Your task to perform on an android device: Open sound settings Image 0: 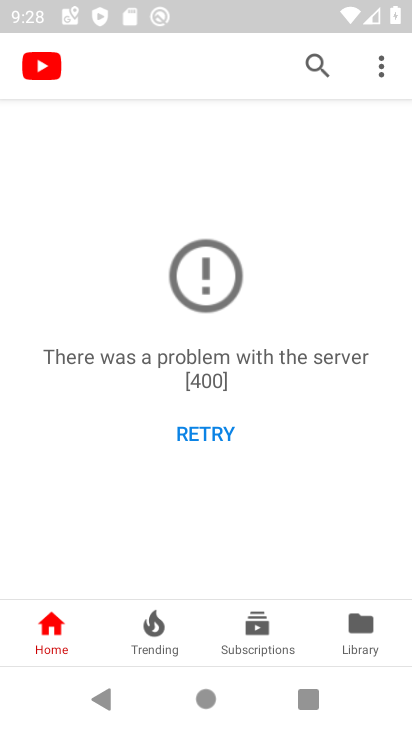
Step 0: press home button
Your task to perform on an android device: Open sound settings Image 1: 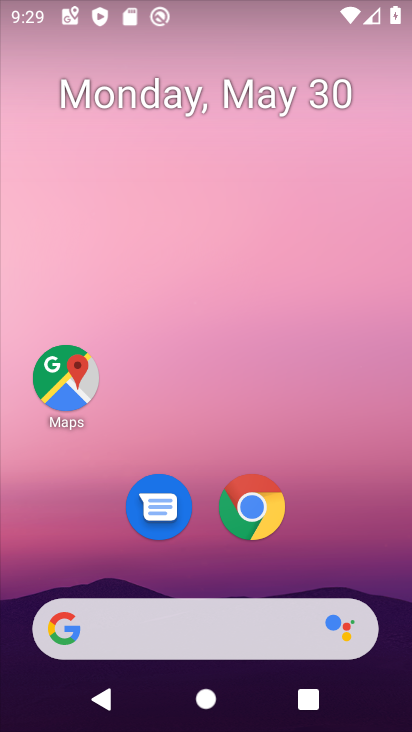
Step 1: drag from (191, 525) to (207, 200)
Your task to perform on an android device: Open sound settings Image 2: 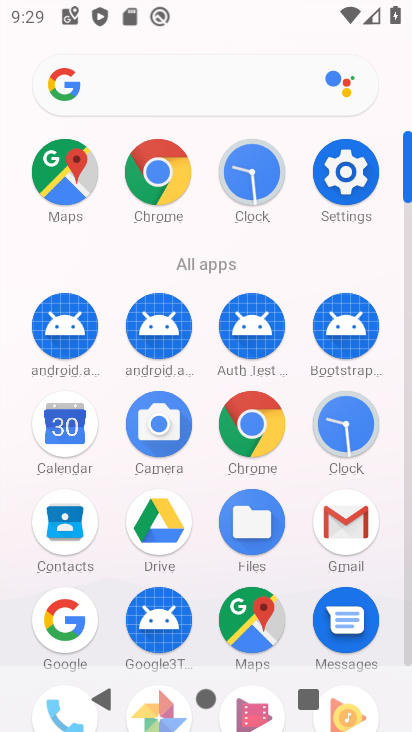
Step 2: click (348, 181)
Your task to perform on an android device: Open sound settings Image 3: 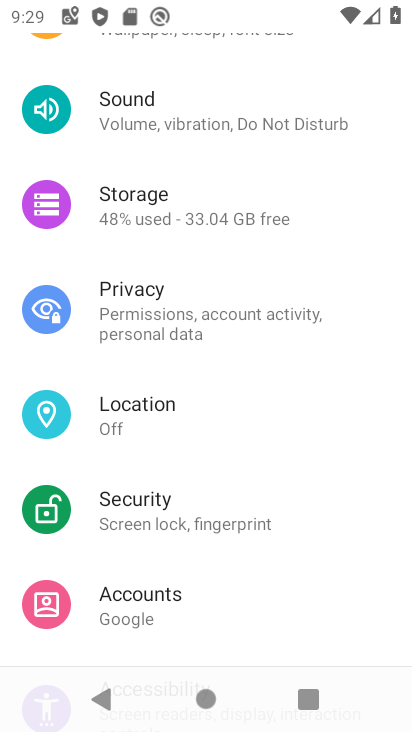
Step 3: click (175, 126)
Your task to perform on an android device: Open sound settings Image 4: 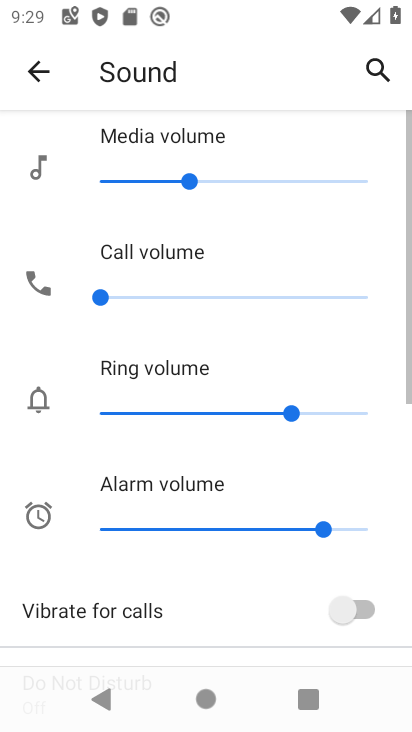
Step 4: task complete